Your task to perform on an android device: see creations saved in the google photos Image 0: 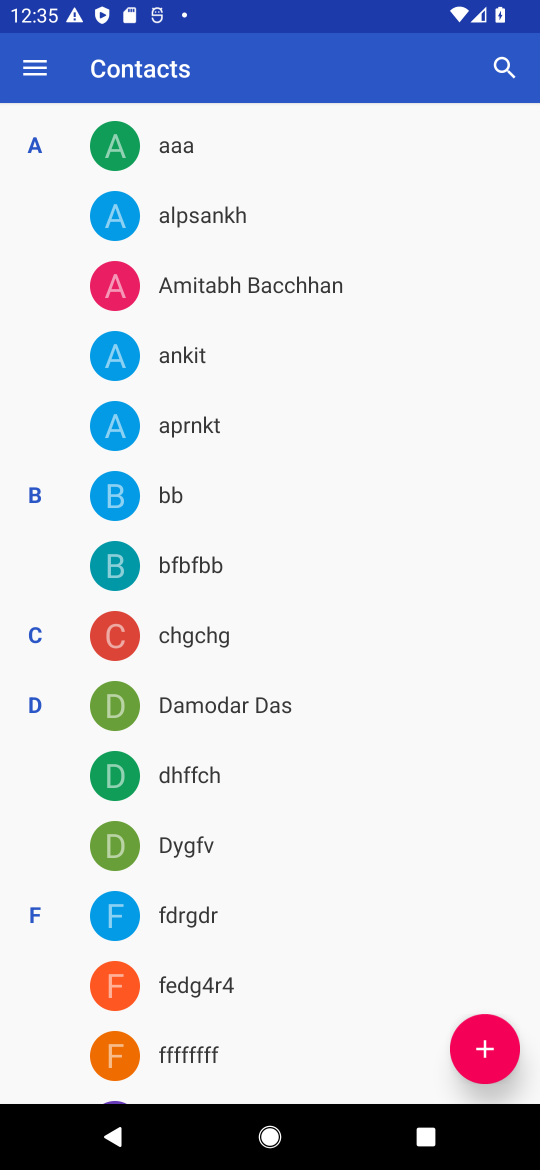
Step 0: press home button
Your task to perform on an android device: see creations saved in the google photos Image 1: 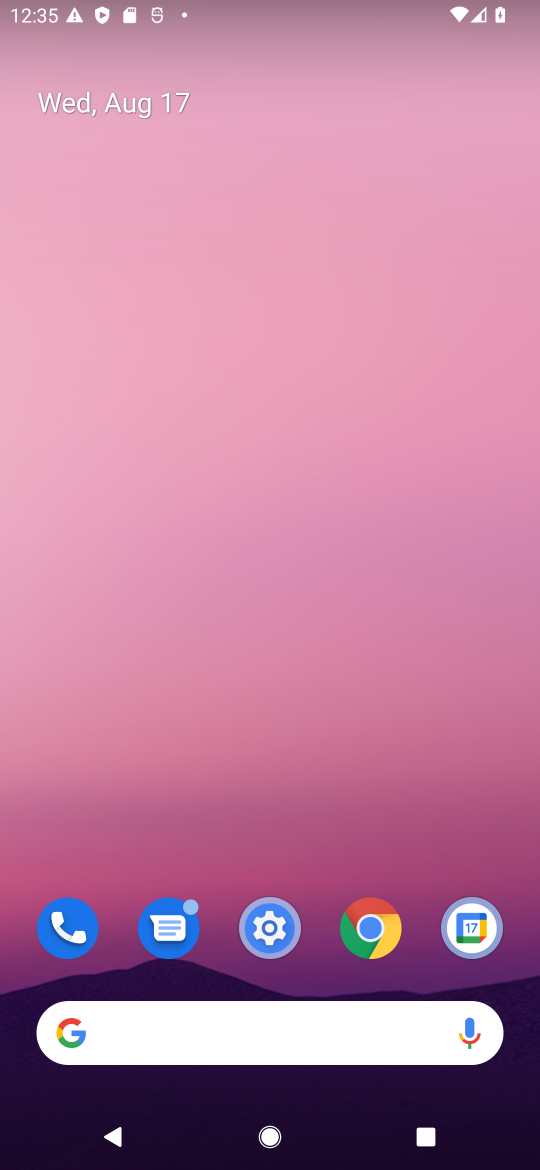
Step 1: drag from (341, 839) to (341, 179)
Your task to perform on an android device: see creations saved in the google photos Image 2: 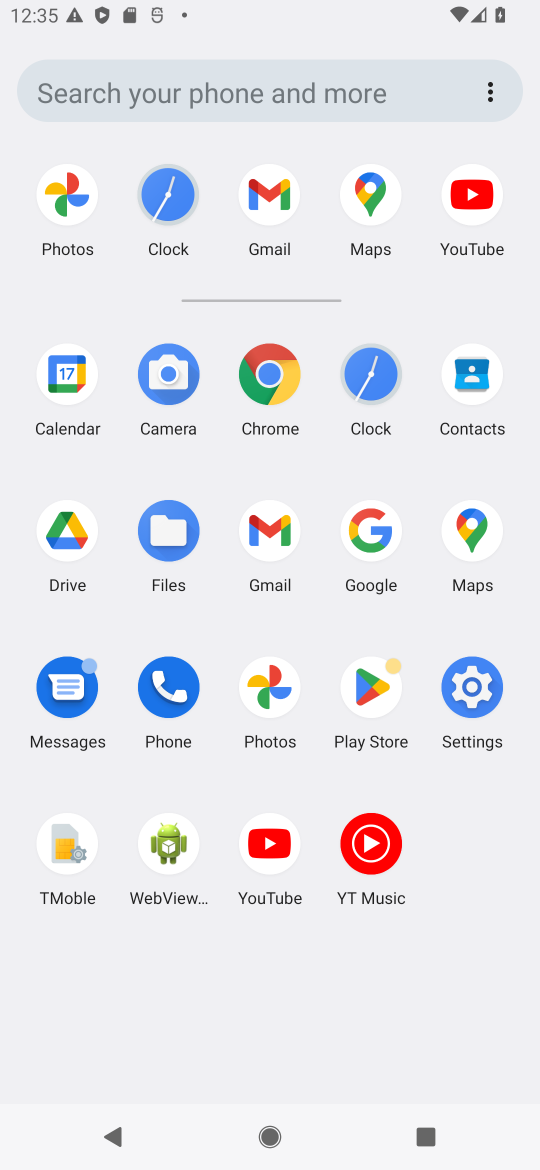
Step 2: click (74, 181)
Your task to perform on an android device: see creations saved in the google photos Image 3: 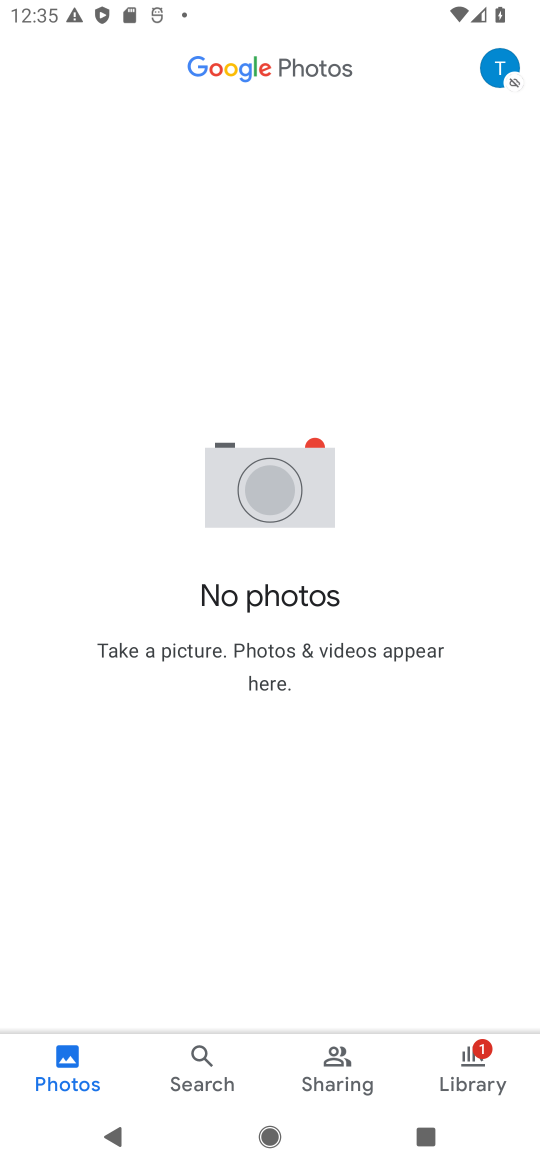
Step 3: click (283, 78)
Your task to perform on an android device: see creations saved in the google photos Image 4: 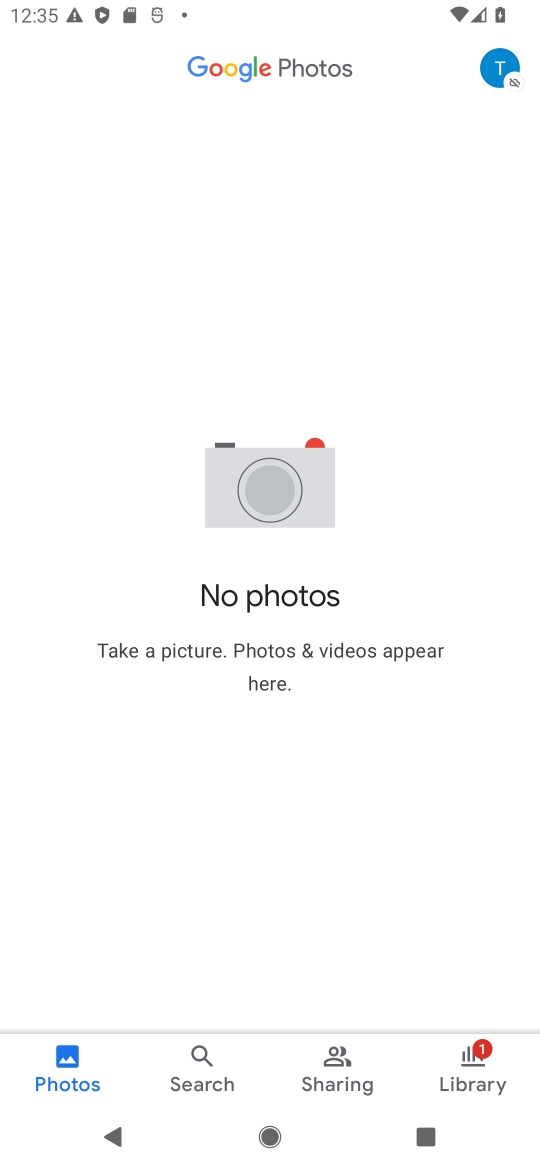
Step 4: click (342, 1075)
Your task to perform on an android device: see creations saved in the google photos Image 5: 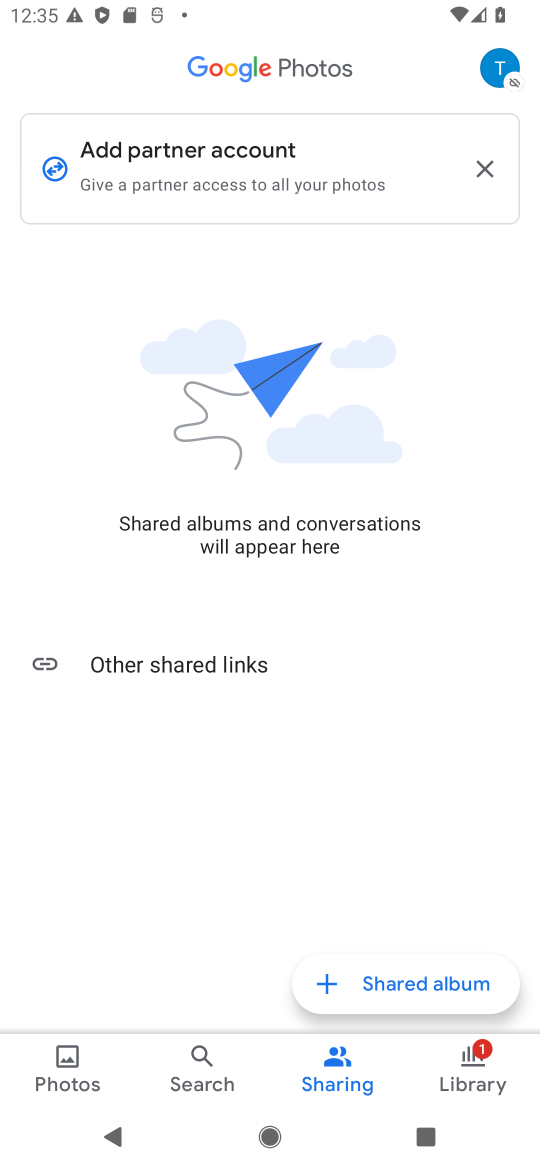
Step 5: click (463, 1056)
Your task to perform on an android device: see creations saved in the google photos Image 6: 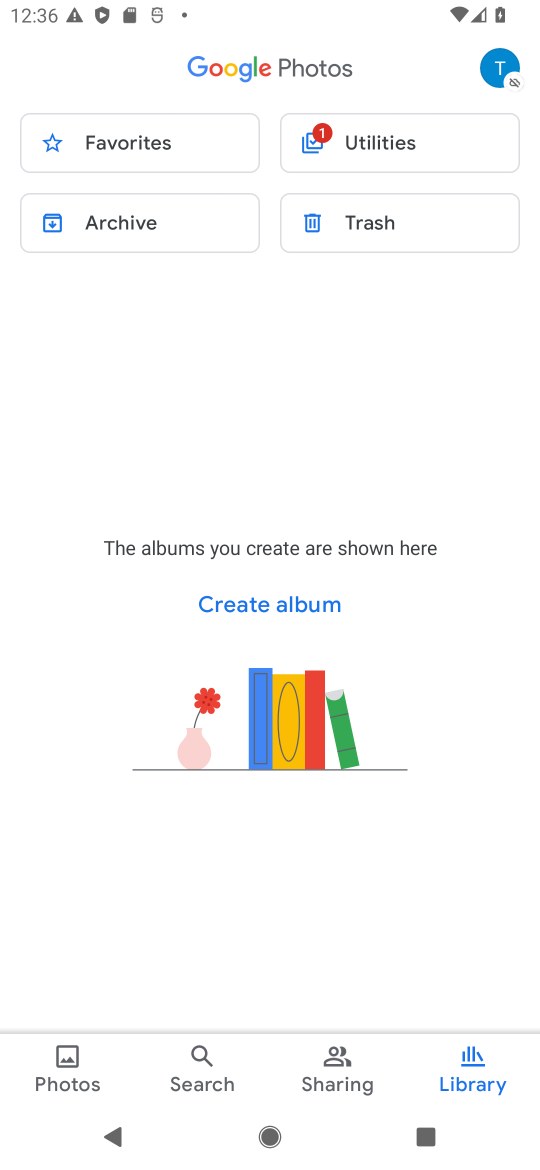
Step 6: click (227, 74)
Your task to perform on an android device: see creations saved in the google photos Image 7: 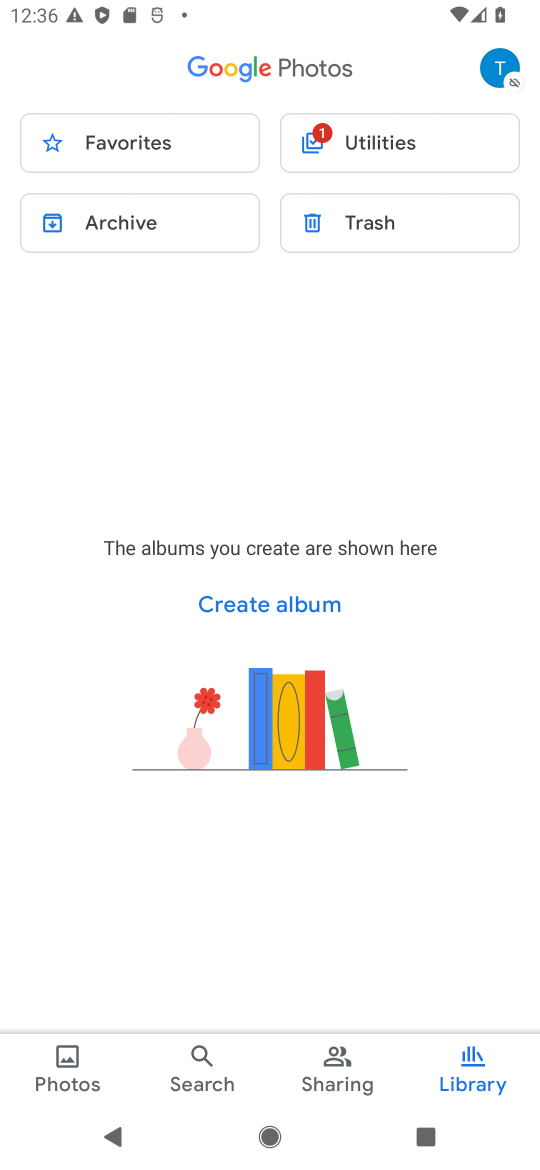
Step 7: click (489, 64)
Your task to perform on an android device: see creations saved in the google photos Image 8: 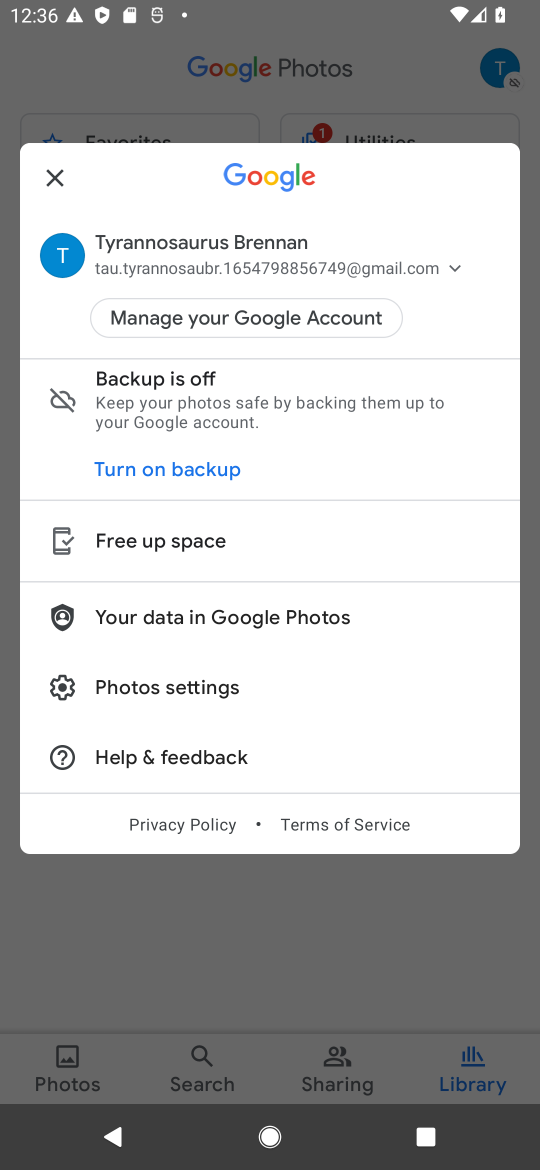
Step 8: click (51, 184)
Your task to perform on an android device: see creations saved in the google photos Image 9: 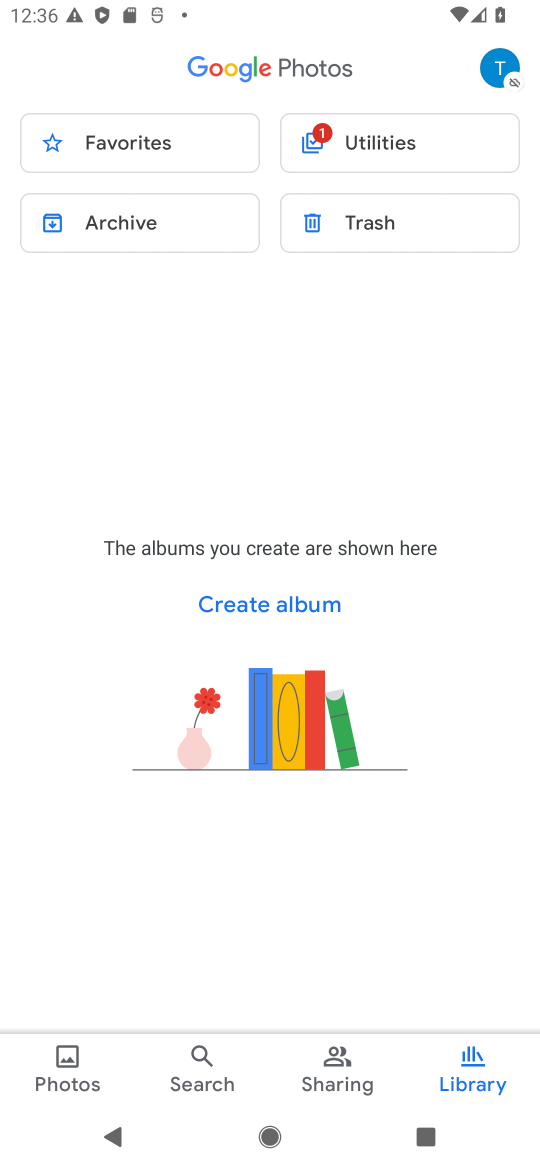
Step 9: click (343, 143)
Your task to perform on an android device: see creations saved in the google photos Image 10: 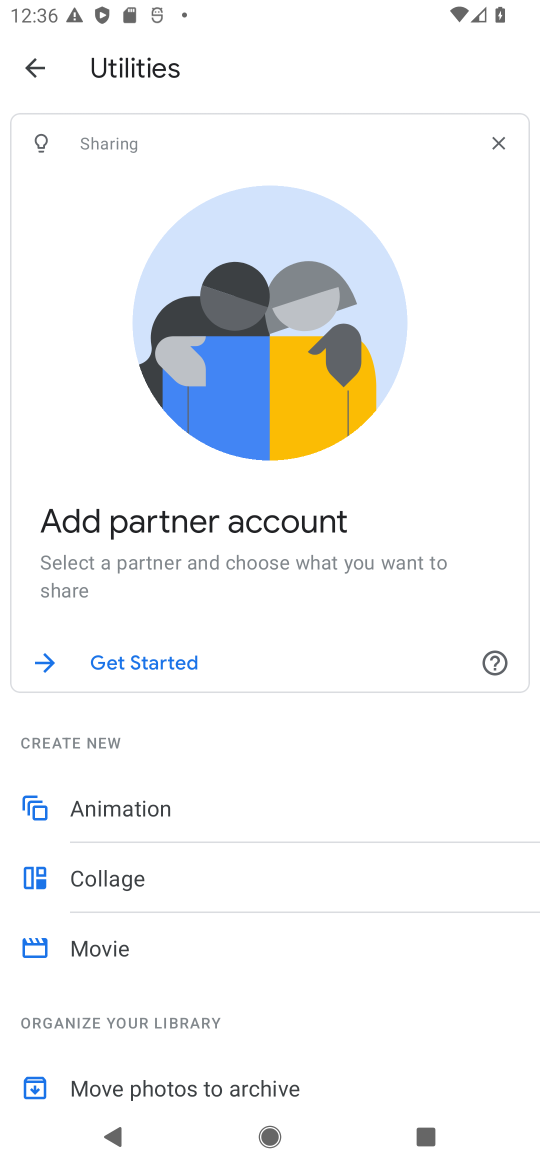
Step 10: task complete